Your task to perform on an android device: Turn on the flashlight Image 0: 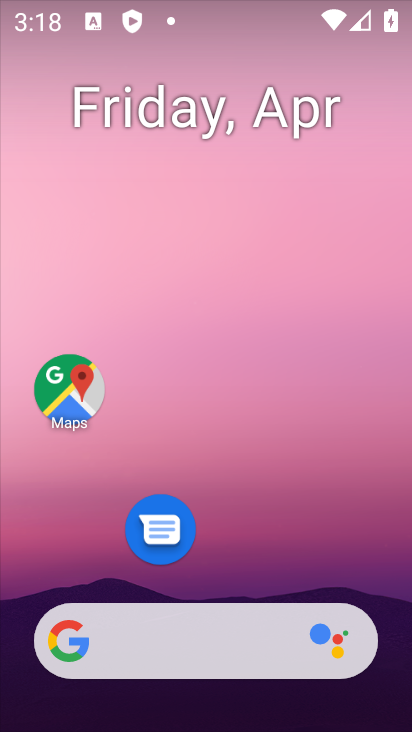
Step 0: drag from (251, 584) to (350, 206)
Your task to perform on an android device: Turn on the flashlight Image 1: 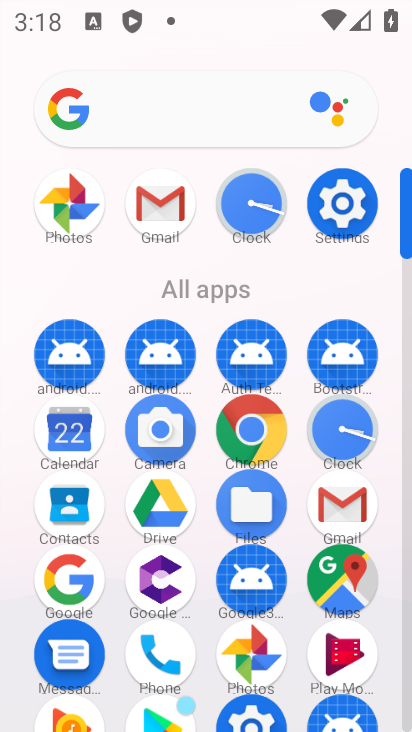
Step 1: click (347, 210)
Your task to perform on an android device: Turn on the flashlight Image 2: 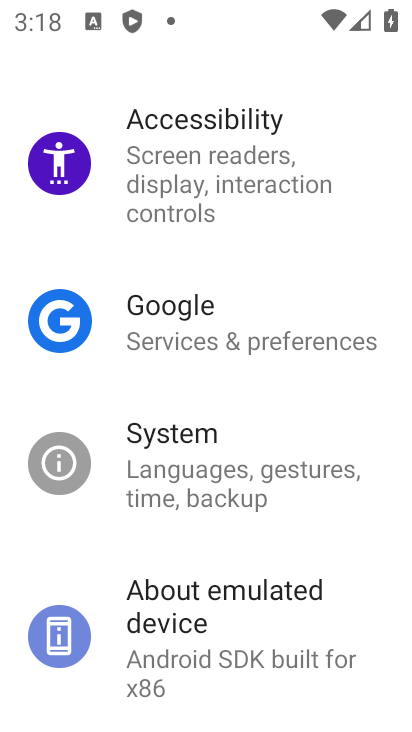
Step 2: task complete